Your task to perform on an android device: Open Yahoo.com Image 0: 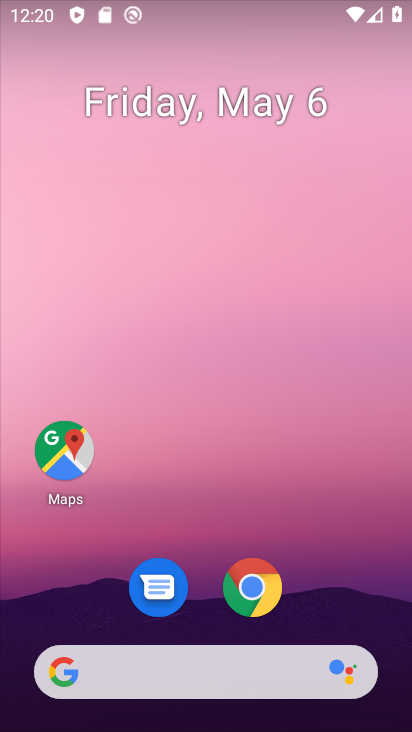
Step 0: click (278, 584)
Your task to perform on an android device: Open Yahoo.com Image 1: 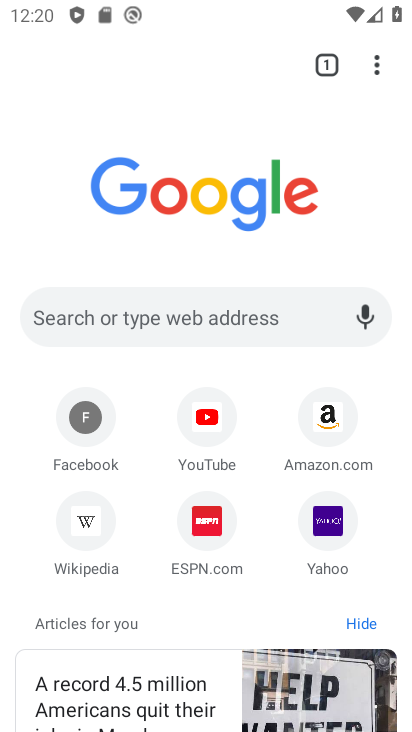
Step 1: click (335, 531)
Your task to perform on an android device: Open Yahoo.com Image 2: 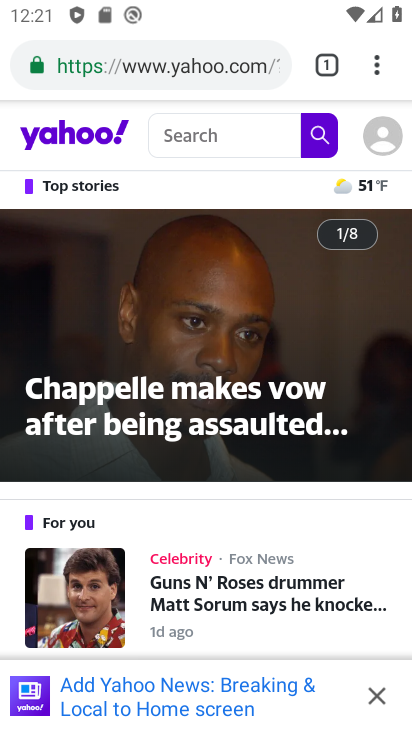
Step 2: task complete